Your task to perform on an android device: install app "Airtel Thanks" Image 0: 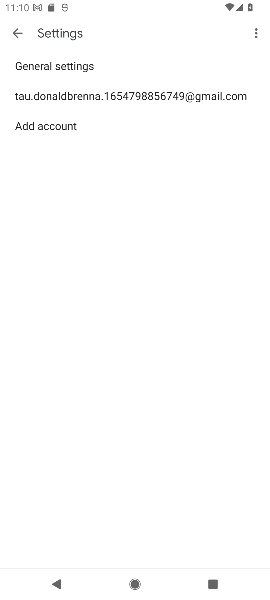
Step 0: press home button
Your task to perform on an android device: install app "Airtel Thanks" Image 1: 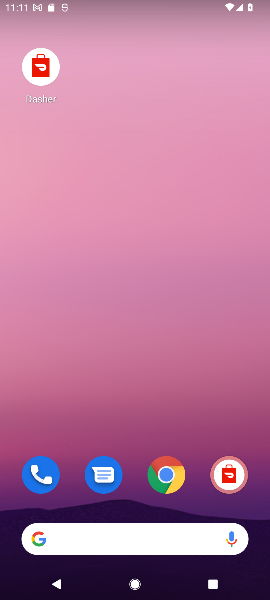
Step 1: drag from (127, 433) to (163, 8)
Your task to perform on an android device: install app "Airtel Thanks" Image 2: 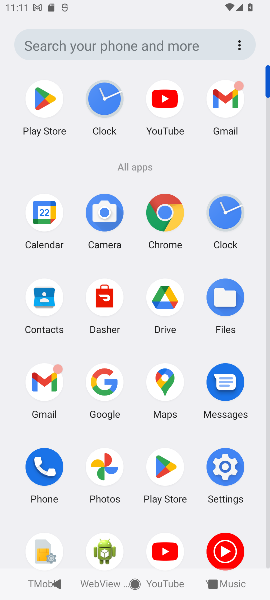
Step 2: click (40, 105)
Your task to perform on an android device: install app "Airtel Thanks" Image 3: 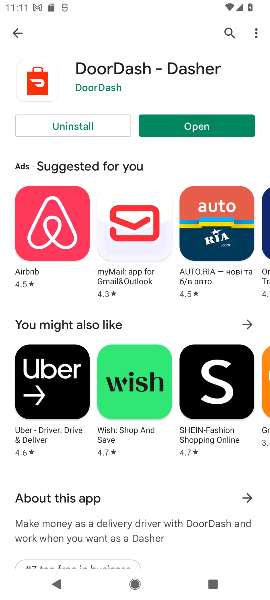
Step 3: click (12, 29)
Your task to perform on an android device: install app "Airtel Thanks" Image 4: 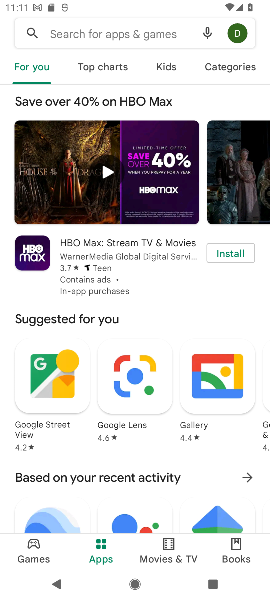
Step 4: click (106, 29)
Your task to perform on an android device: install app "Airtel Thanks" Image 5: 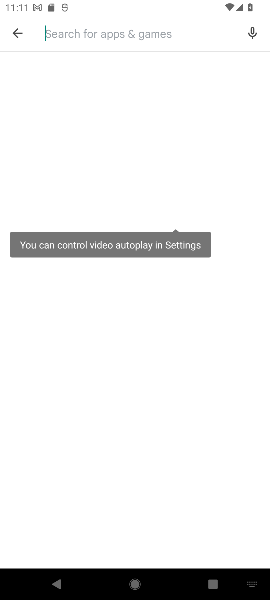
Step 5: type "Airtel Thanks"
Your task to perform on an android device: install app "Airtel Thanks" Image 6: 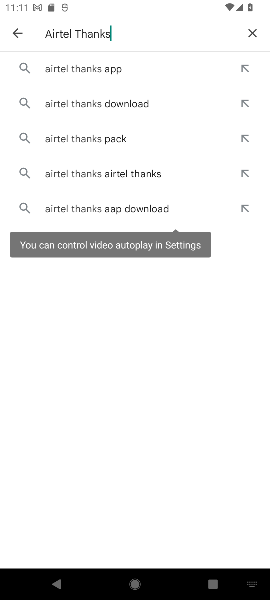
Step 6: click (79, 67)
Your task to perform on an android device: install app "Airtel Thanks" Image 7: 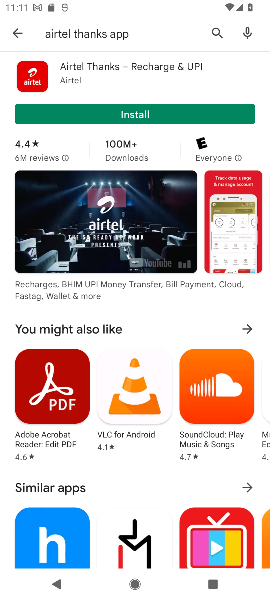
Step 7: click (144, 116)
Your task to perform on an android device: install app "Airtel Thanks" Image 8: 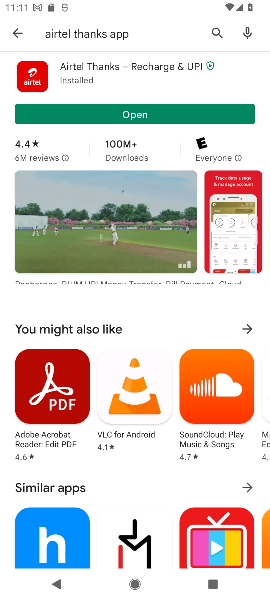
Step 8: click (167, 116)
Your task to perform on an android device: install app "Airtel Thanks" Image 9: 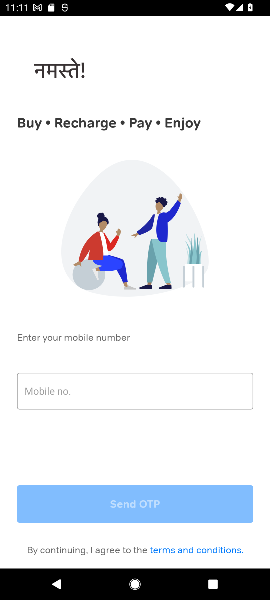
Step 9: task complete